Your task to perform on an android device: How much does the Sony TV cost? Image 0: 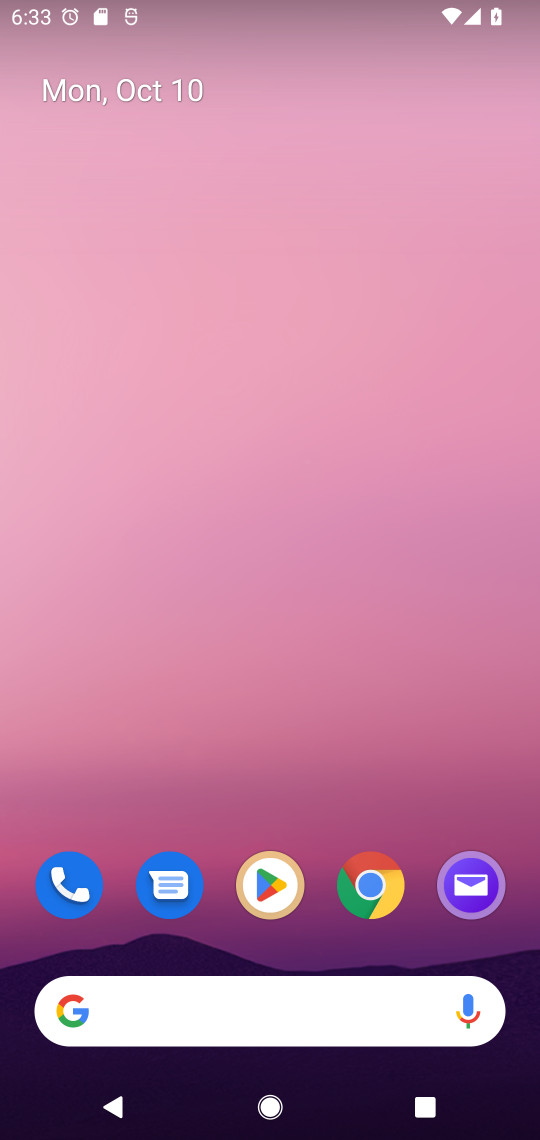
Step 0: click (366, 907)
Your task to perform on an android device: How much does the Sony TV cost? Image 1: 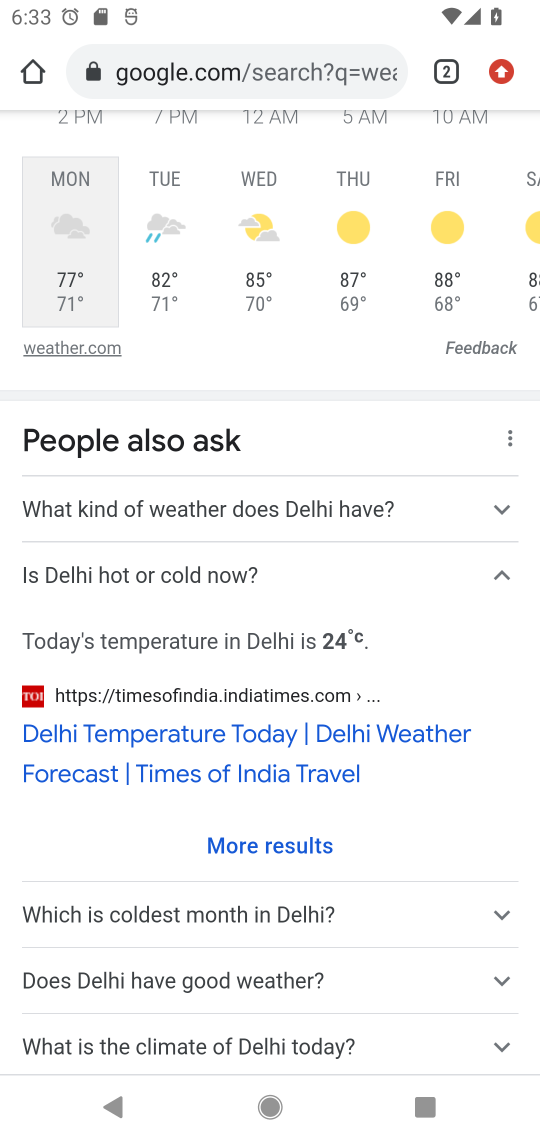
Step 1: click (230, 69)
Your task to perform on an android device: How much does the Sony TV cost? Image 2: 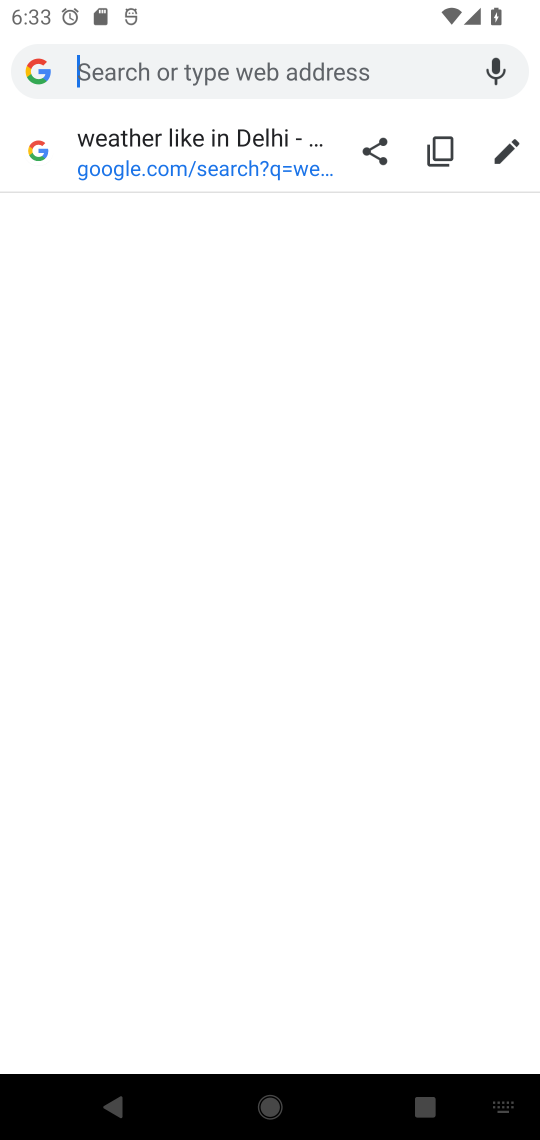
Step 2: type "the Sony TV cost"
Your task to perform on an android device: How much does the Sony TV cost? Image 3: 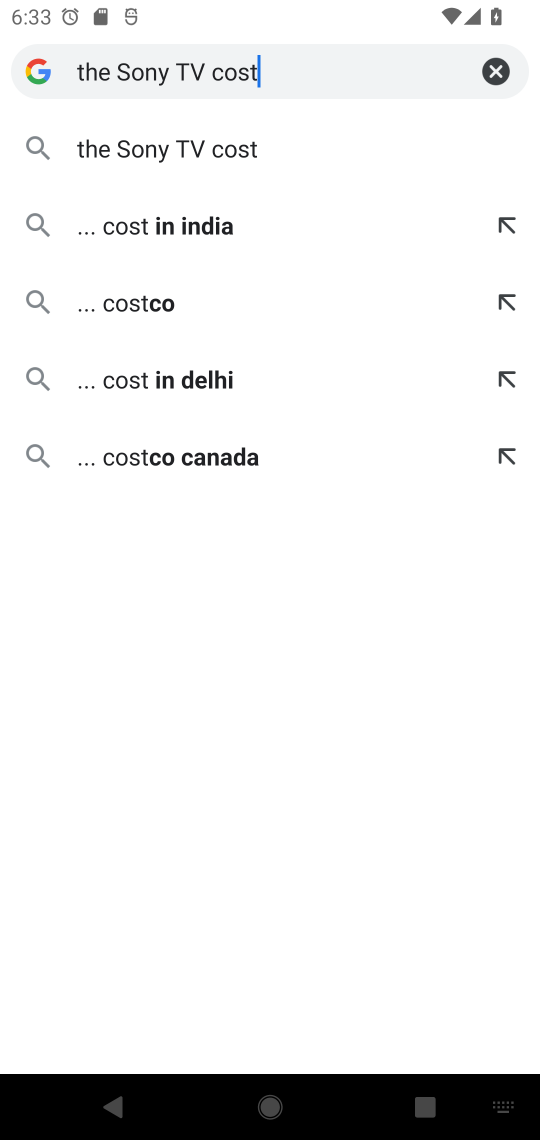
Step 3: click (224, 146)
Your task to perform on an android device: How much does the Sony TV cost? Image 4: 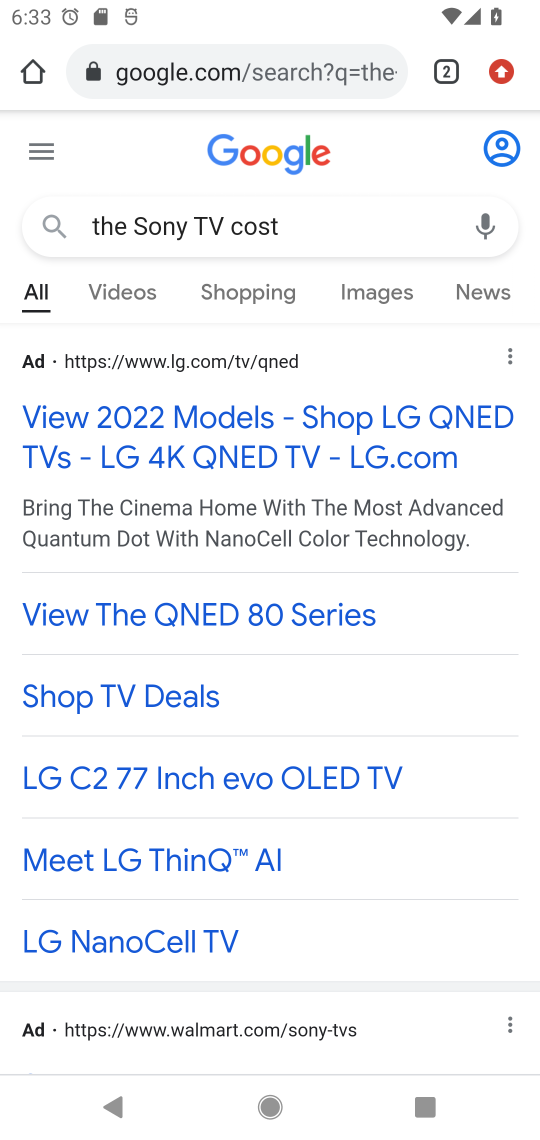
Step 4: drag from (453, 813) to (414, 371)
Your task to perform on an android device: How much does the Sony TV cost? Image 5: 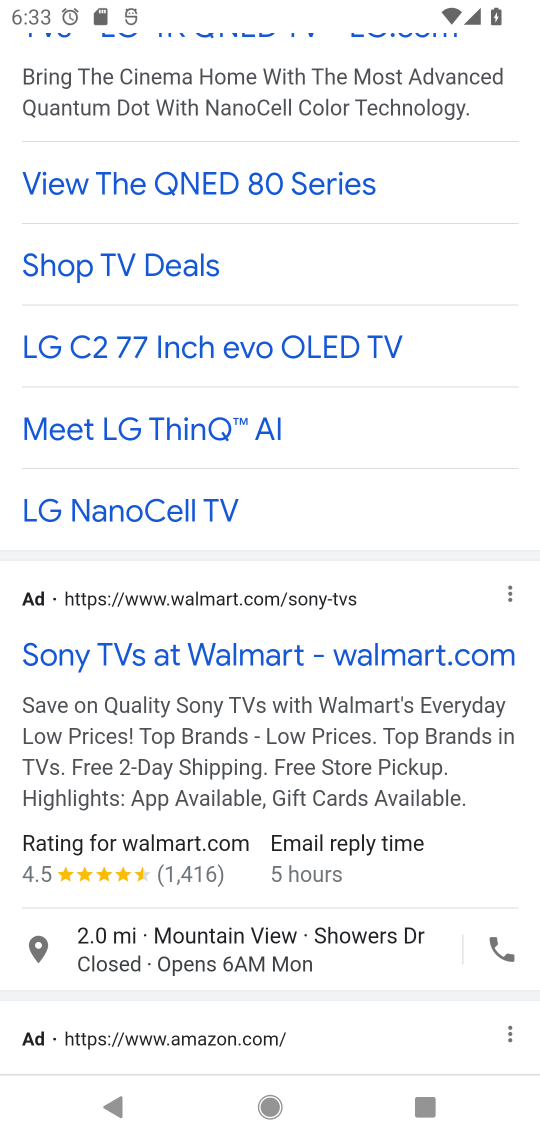
Step 5: click (152, 657)
Your task to perform on an android device: How much does the Sony TV cost? Image 6: 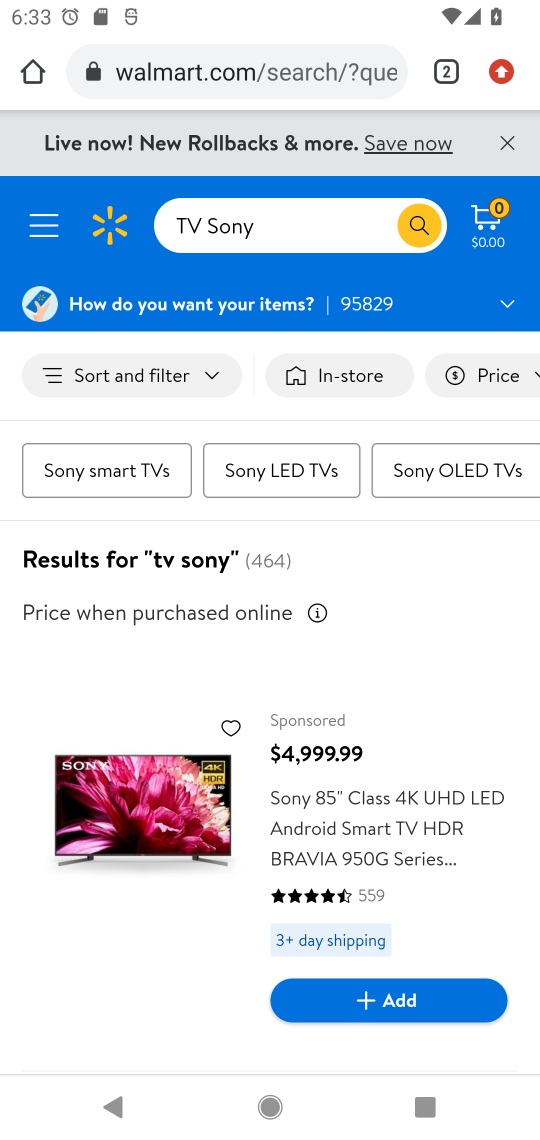
Step 6: task complete